Your task to perform on an android device: Open Youtube and go to "Your channel" Image 0: 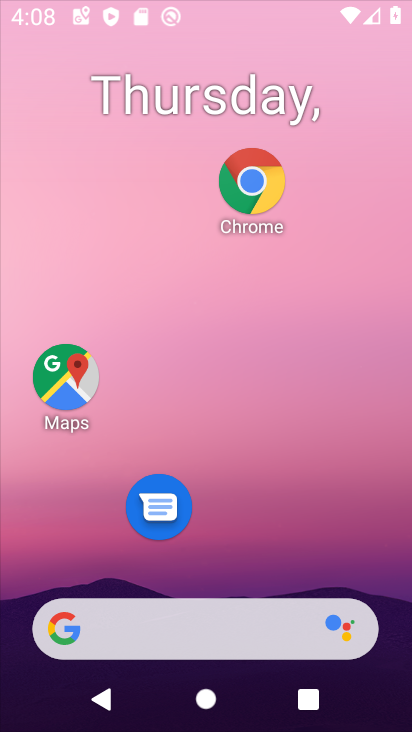
Step 0: press back button
Your task to perform on an android device: Open Youtube and go to "Your channel" Image 1: 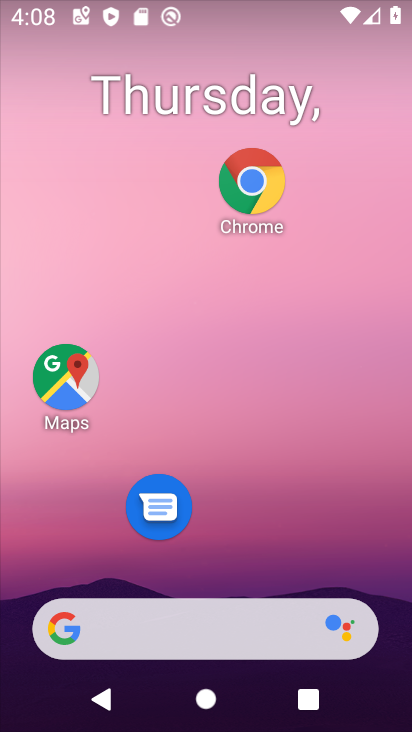
Step 1: drag from (273, 617) to (241, 198)
Your task to perform on an android device: Open Youtube and go to "Your channel" Image 2: 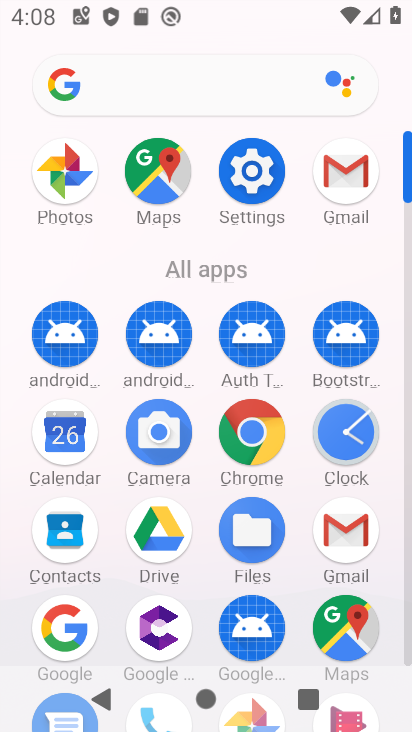
Step 2: click (296, 217)
Your task to perform on an android device: Open Youtube and go to "Your channel" Image 3: 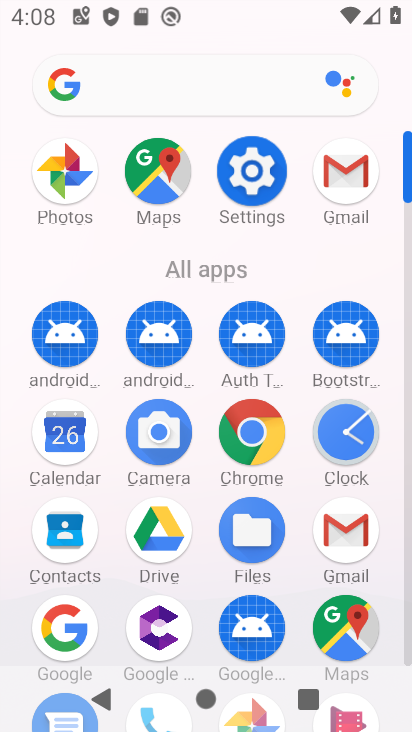
Step 3: drag from (296, 594) to (295, 371)
Your task to perform on an android device: Open Youtube and go to "Your channel" Image 4: 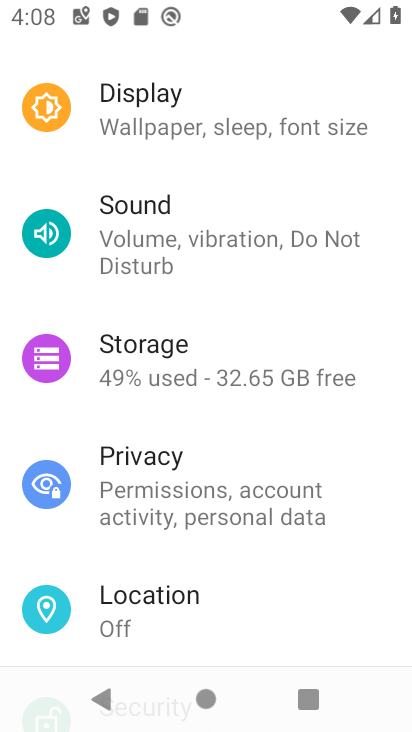
Step 4: drag from (276, 575) to (251, 273)
Your task to perform on an android device: Open Youtube and go to "Your channel" Image 5: 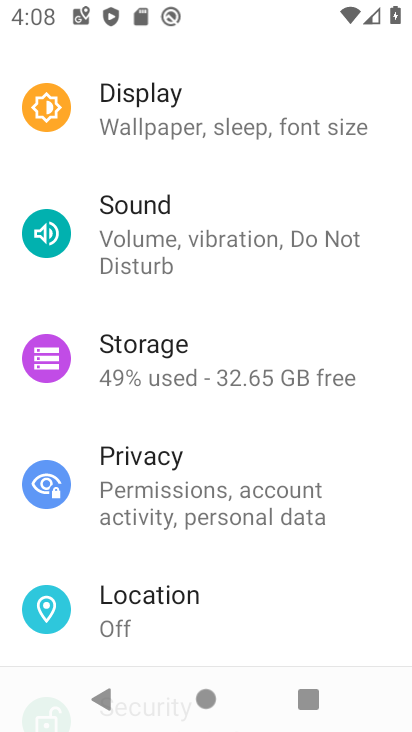
Step 5: press back button
Your task to perform on an android device: Open Youtube and go to "Your channel" Image 6: 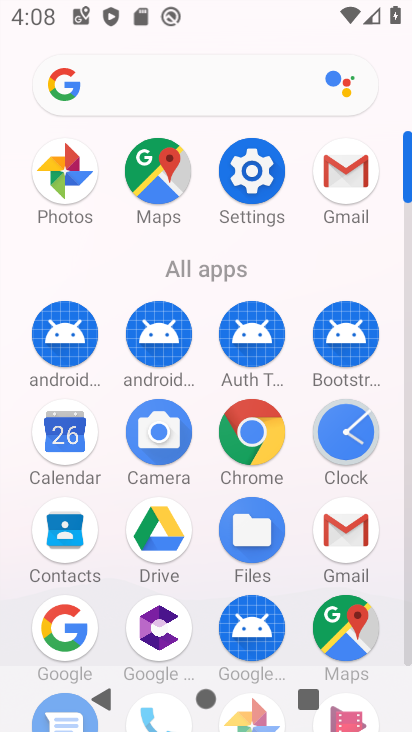
Step 6: press home button
Your task to perform on an android device: Open Youtube and go to "Your channel" Image 7: 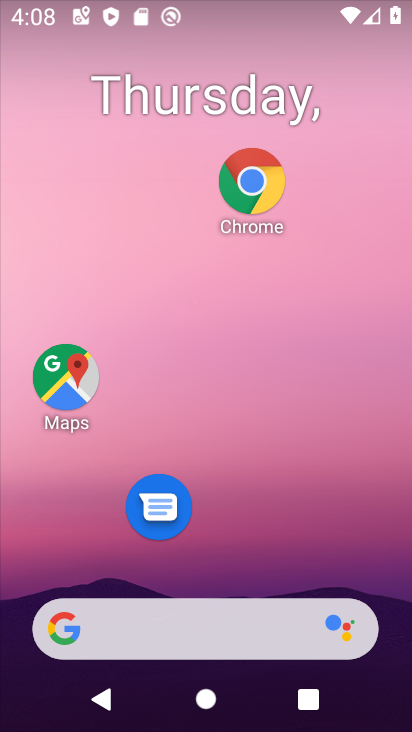
Step 7: drag from (262, 432) to (207, 153)
Your task to perform on an android device: Open Youtube and go to "Your channel" Image 8: 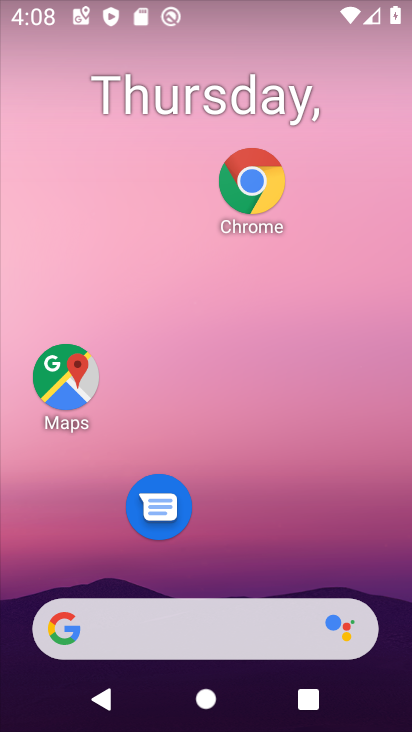
Step 8: drag from (195, 243) to (178, 151)
Your task to perform on an android device: Open Youtube and go to "Your channel" Image 9: 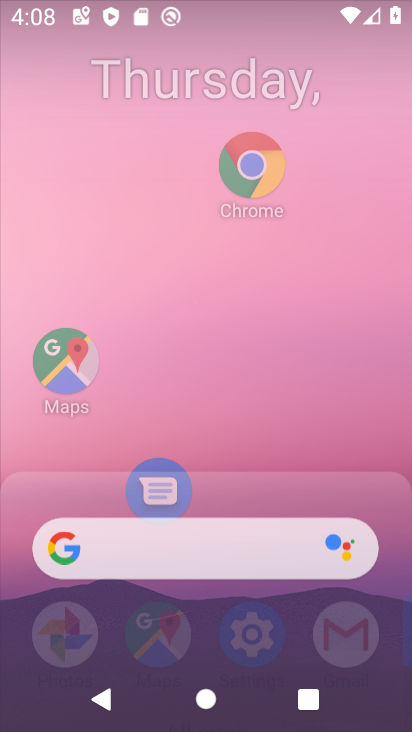
Step 9: drag from (220, 541) to (183, 291)
Your task to perform on an android device: Open Youtube and go to "Your channel" Image 10: 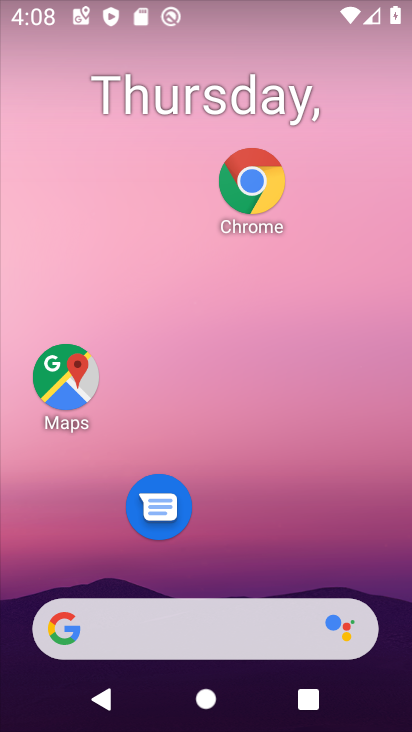
Step 10: drag from (236, 621) to (164, 225)
Your task to perform on an android device: Open Youtube and go to "Your channel" Image 11: 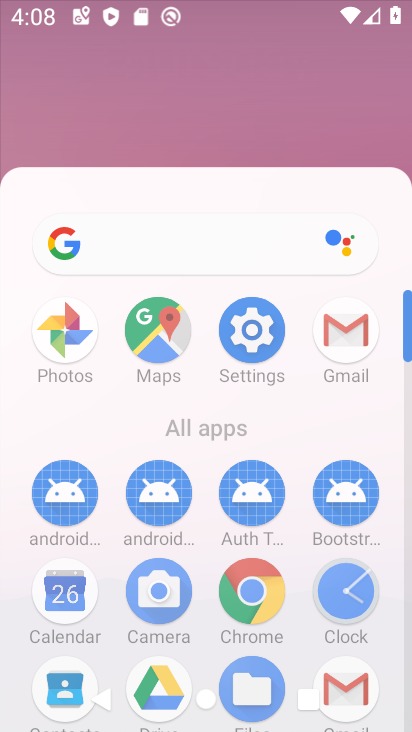
Step 11: drag from (252, 541) to (163, 88)
Your task to perform on an android device: Open Youtube and go to "Your channel" Image 12: 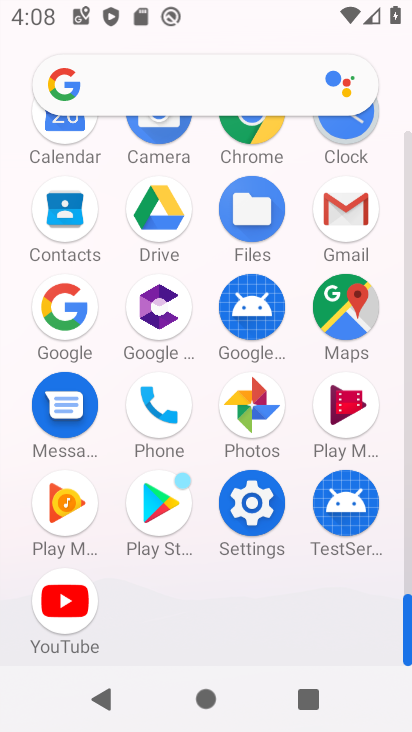
Step 12: drag from (255, 393) to (217, 164)
Your task to perform on an android device: Open Youtube and go to "Your channel" Image 13: 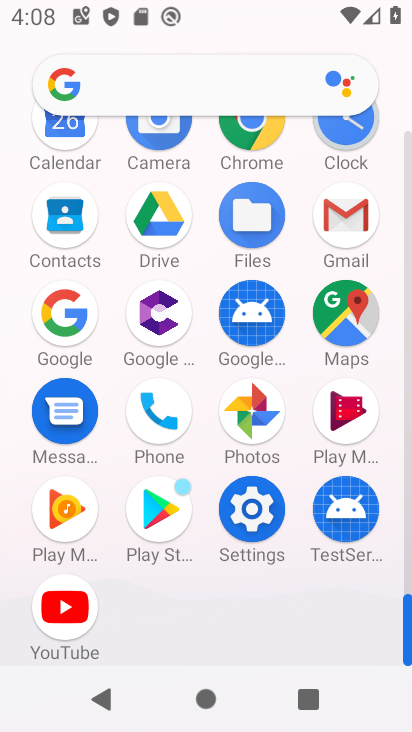
Step 13: click (61, 609)
Your task to perform on an android device: Open Youtube and go to "Your channel" Image 14: 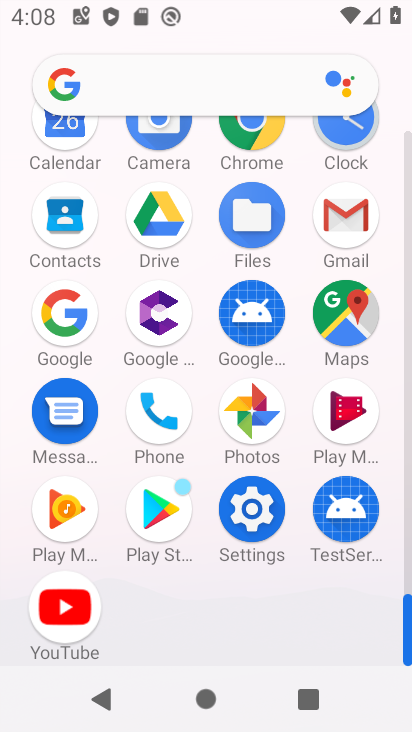
Step 14: click (61, 609)
Your task to perform on an android device: Open Youtube and go to "Your channel" Image 15: 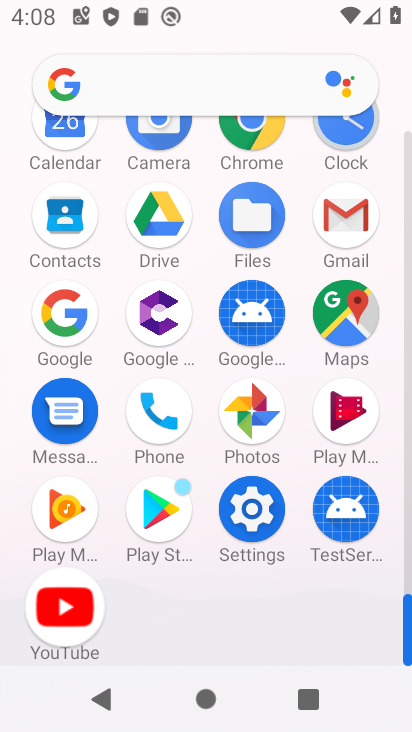
Step 15: click (51, 597)
Your task to perform on an android device: Open Youtube and go to "Your channel" Image 16: 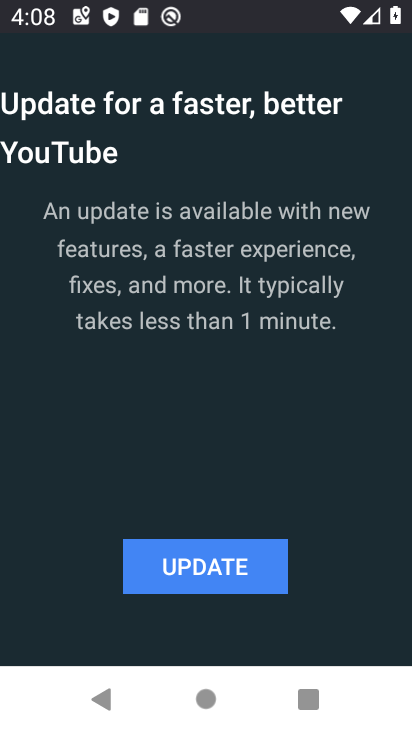
Step 16: click (218, 565)
Your task to perform on an android device: Open Youtube and go to "Your channel" Image 17: 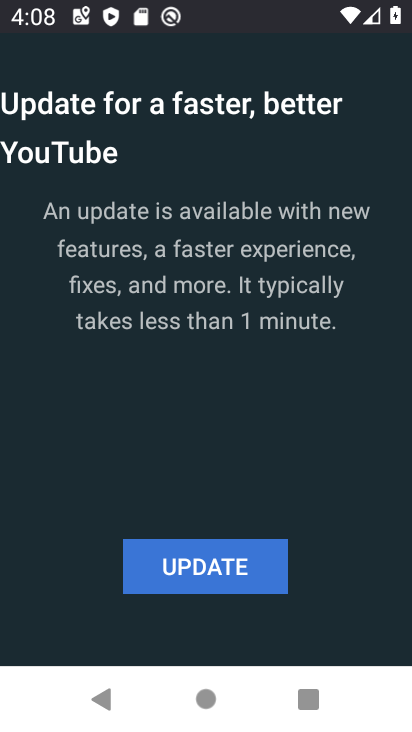
Step 17: click (204, 559)
Your task to perform on an android device: Open Youtube and go to "Your channel" Image 18: 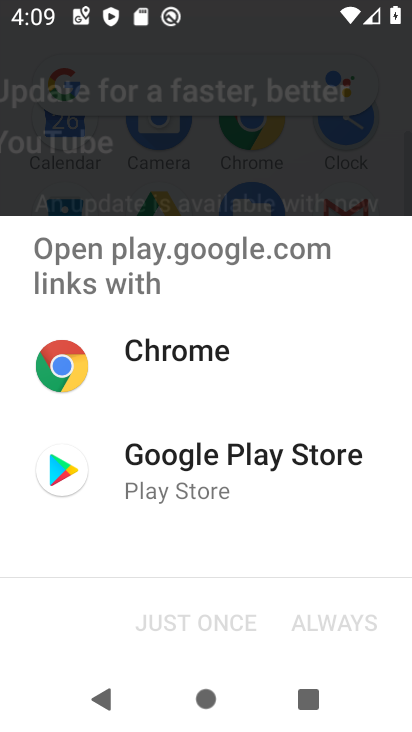
Step 18: click (202, 557)
Your task to perform on an android device: Open Youtube and go to "Your channel" Image 19: 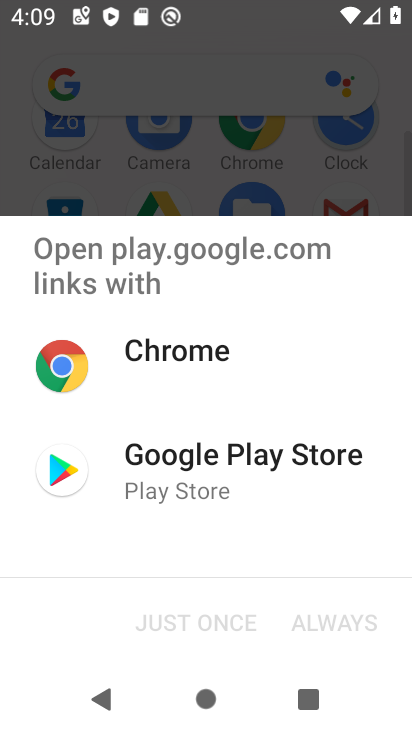
Step 19: click (202, 558)
Your task to perform on an android device: Open Youtube and go to "Your channel" Image 20: 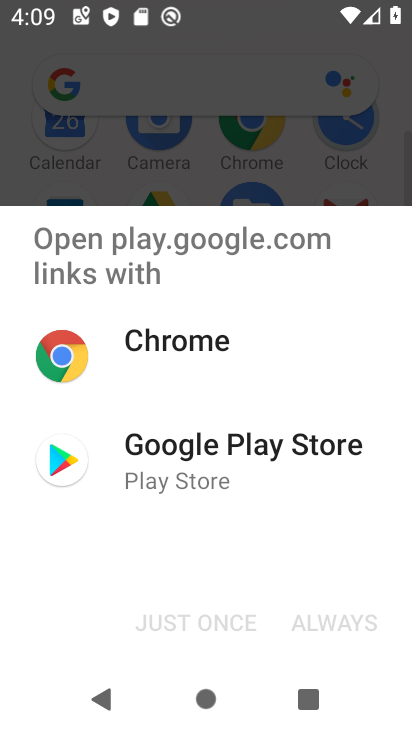
Step 20: click (204, 561)
Your task to perform on an android device: Open Youtube and go to "Your channel" Image 21: 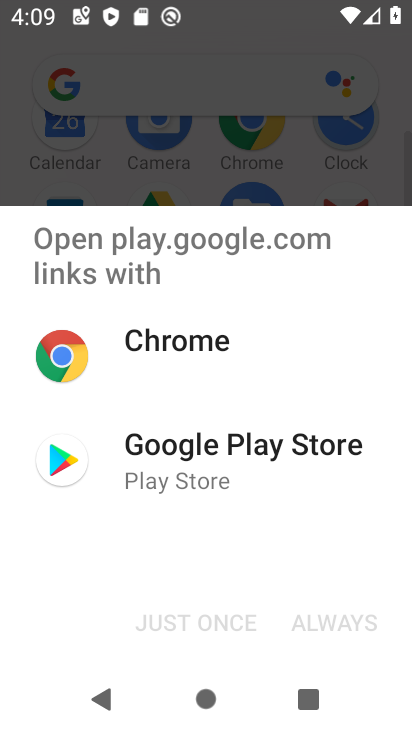
Step 21: click (175, 461)
Your task to perform on an android device: Open Youtube and go to "Your channel" Image 22: 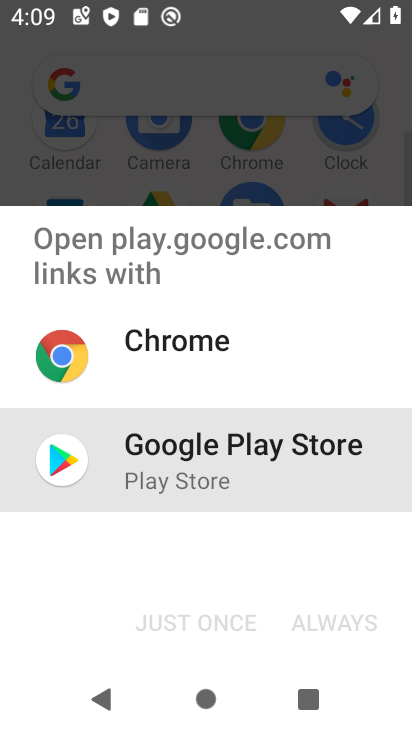
Step 22: click (175, 461)
Your task to perform on an android device: Open Youtube and go to "Your channel" Image 23: 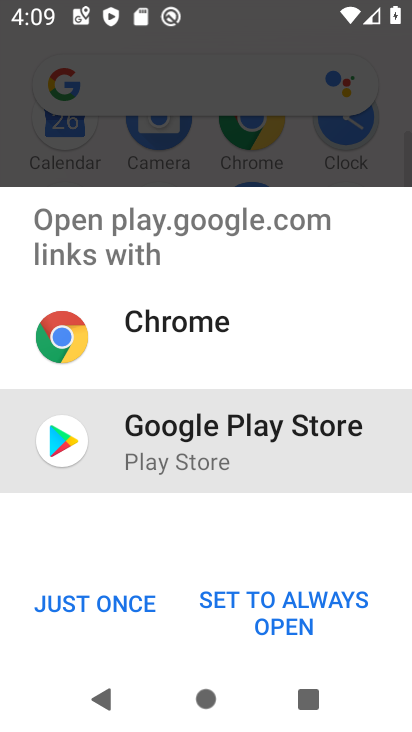
Step 23: click (162, 443)
Your task to perform on an android device: Open Youtube and go to "Your channel" Image 24: 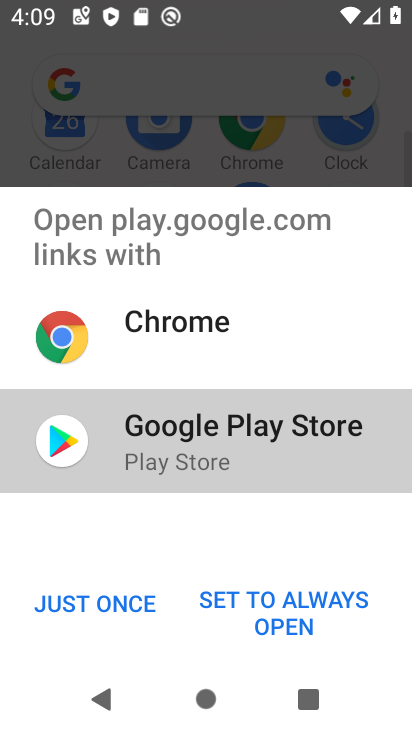
Step 24: click (176, 470)
Your task to perform on an android device: Open Youtube and go to "Your channel" Image 25: 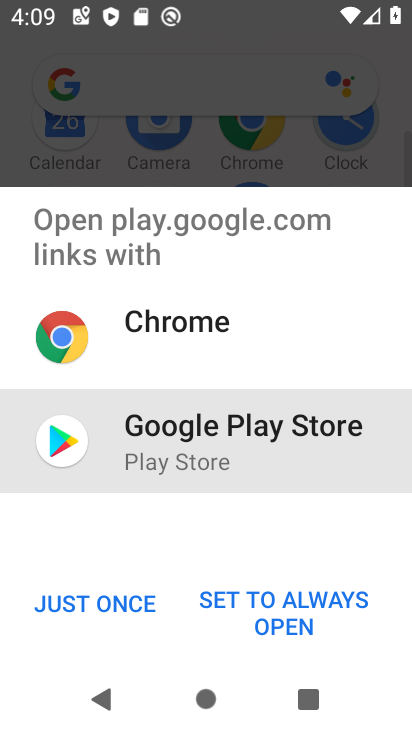
Step 25: click (152, 464)
Your task to perform on an android device: Open Youtube and go to "Your channel" Image 26: 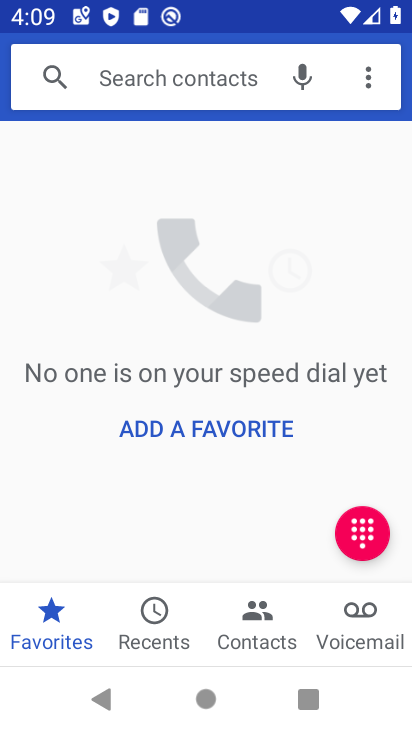
Step 26: task complete